Your task to perform on an android device: turn off airplane mode Image 0: 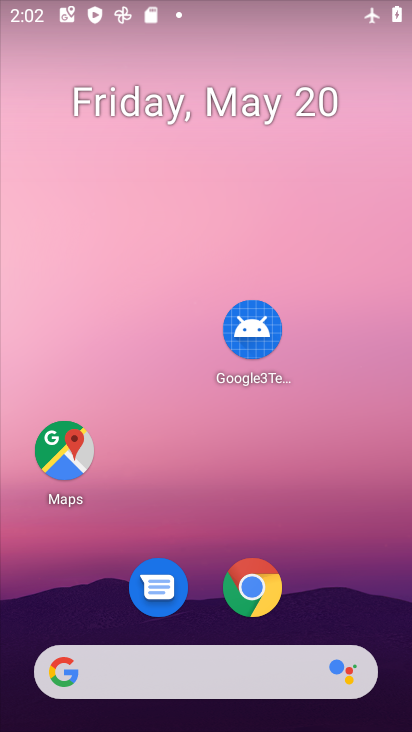
Step 0: drag from (354, 548) to (267, 7)
Your task to perform on an android device: turn off airplane mode Image 1: 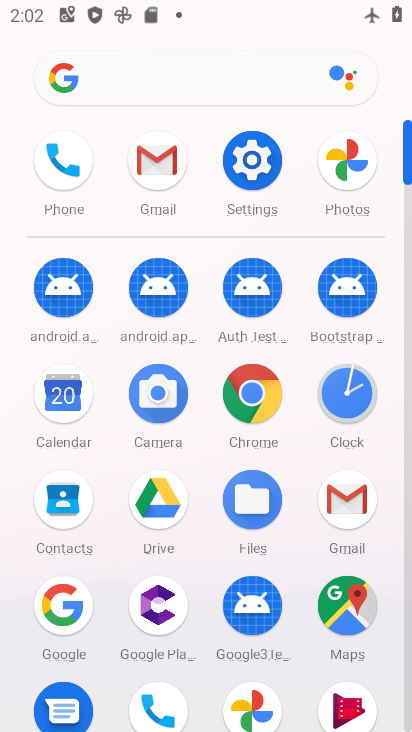
Step 1: click (253, 152)
Your task to perform on an android device: turn off airplane mode Image 2: 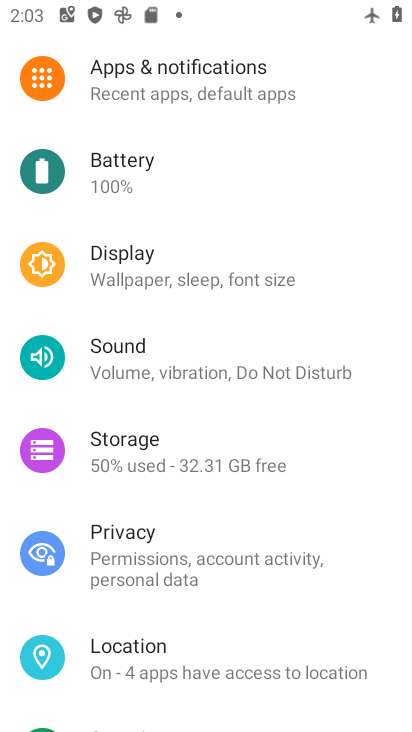
Step 2: drag from (200, 138) to (206, 452)
Your task to perform on an android device: turn off airplane mode Image 3: 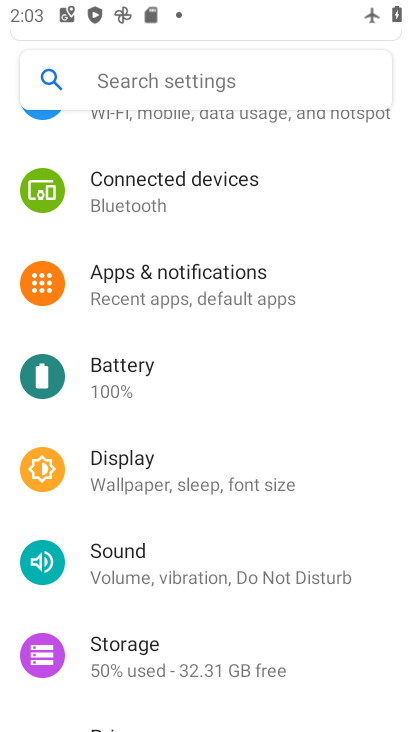
Step 3: drag from (202, 213) to (233, 525)
Your task to perform on an android device: turn off airplane mode Image 4: 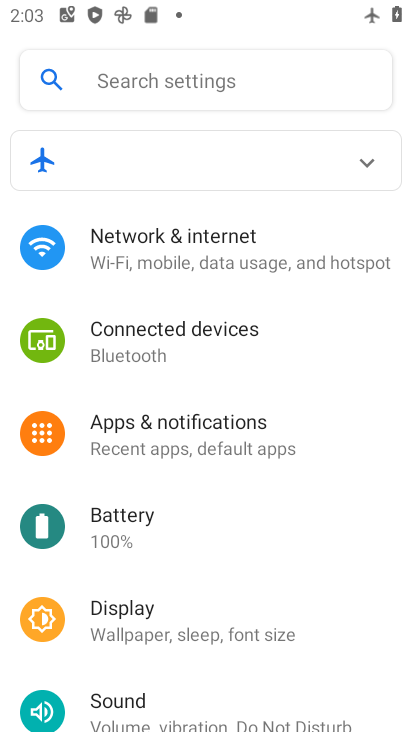
Step 4: click (157, 246)
Your task to perform on an android device: turn off airplane mode Image 5: 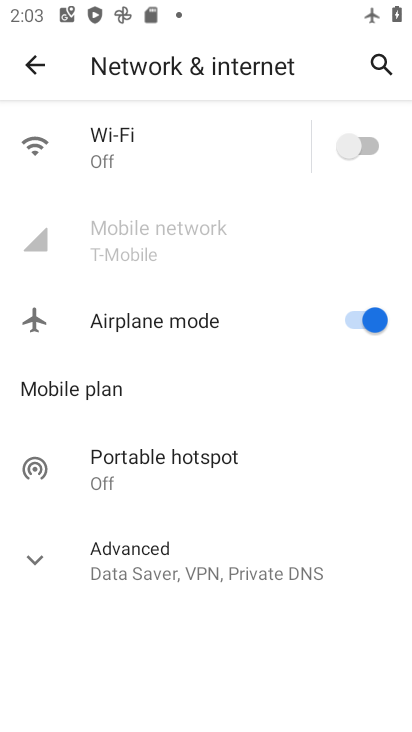
Step 5: click (356, 306)
Your task to perform on an android device: turn off airplane mode Image 6: 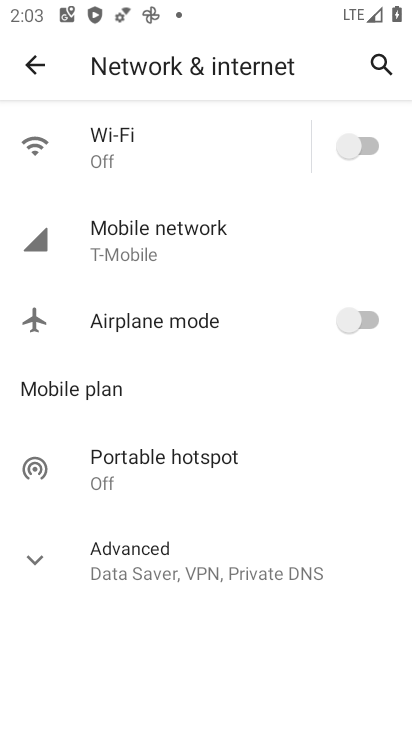
Step 6: task complete